Your task to perform on an android device: Open battery settings Image 0: 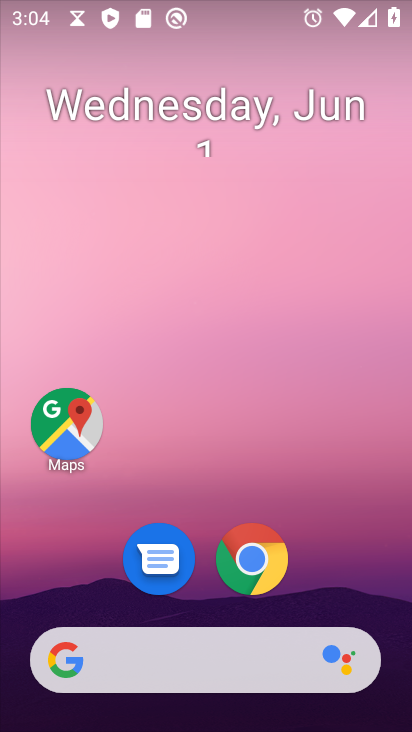
Step 0: drag from (353, 578) to (263, 24)
Your task to perform on an android device: Open battery settings Image 1: 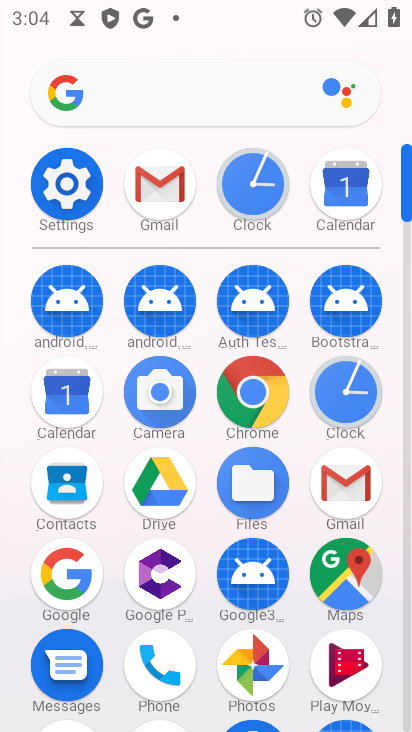
Step 1: click (72, 174)
Your task to perform on an android device: Open battery settings Image 2: 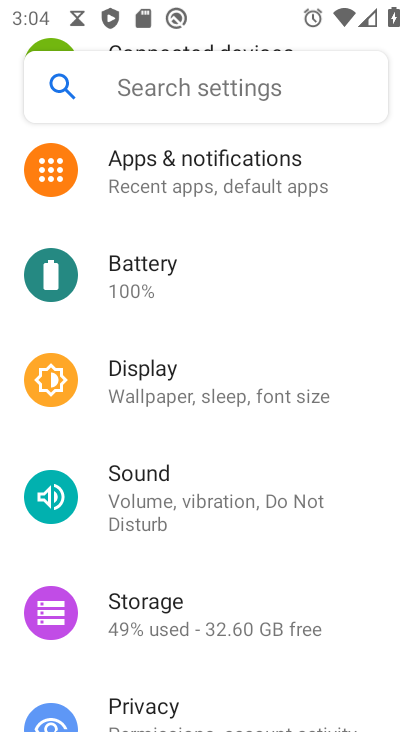
Step 2: click (158, 287)
Your task to perform on an android device: Open battery settings Image 3: 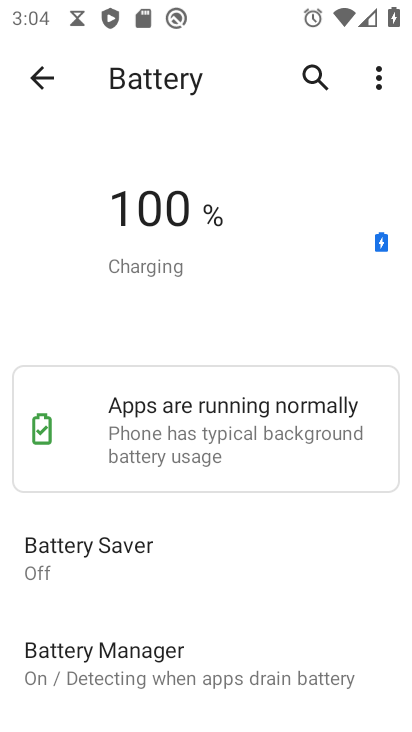
Step 3: task complete